Your task to perform on an android device: Open maps Image 0: 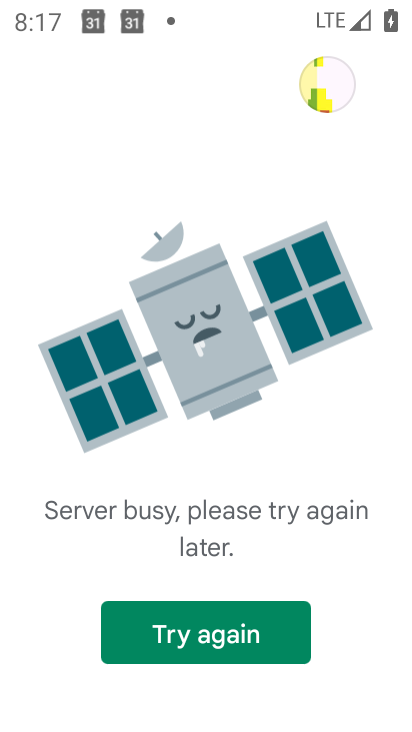
Step 0: press back button
Your task to perform on an android device: Open maps Image 1: 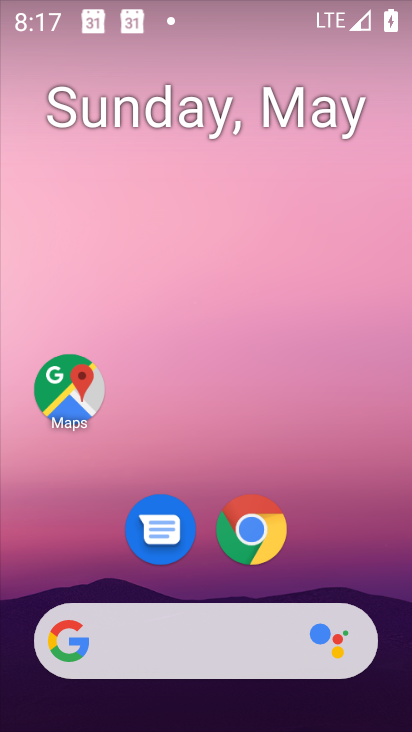
Step 1: click (71, 386)
Your task to perform on an android device: Open maps Image 2: 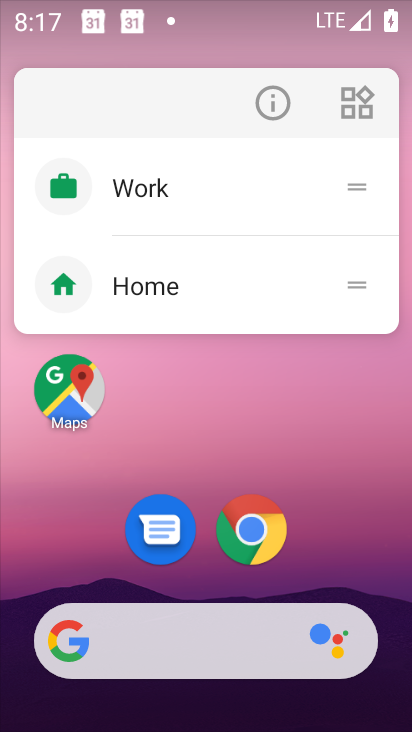
Step 2: click (72, 393)
Your task to perform on an android device: Open maps Image 3: 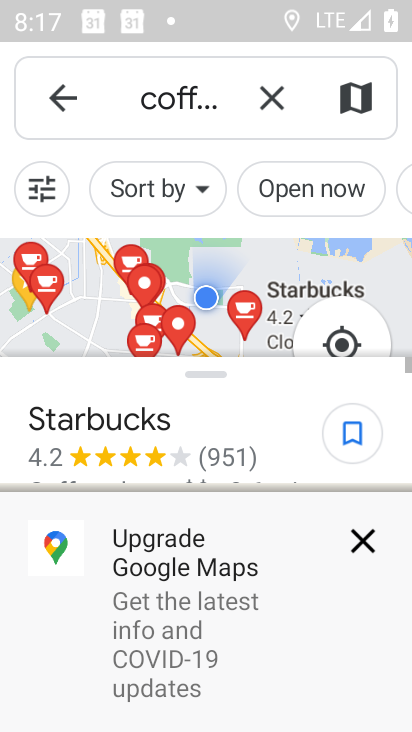
Step 3: click (268, 87)
Your task to perform on an android device: Open maps Image 4: 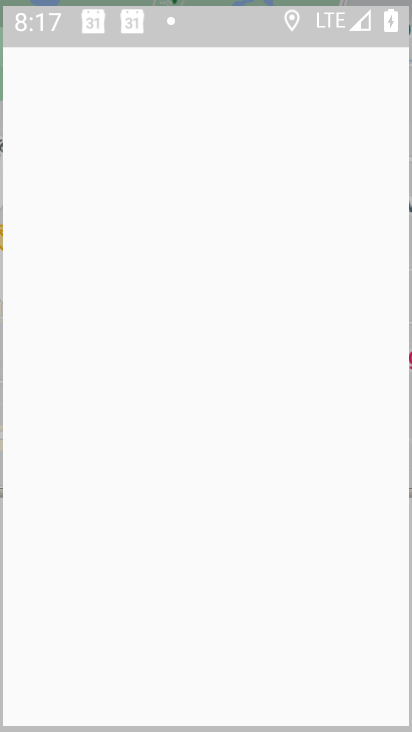
Step 4: task complete